Your task to perform on an android device: toggle location history Image 0: 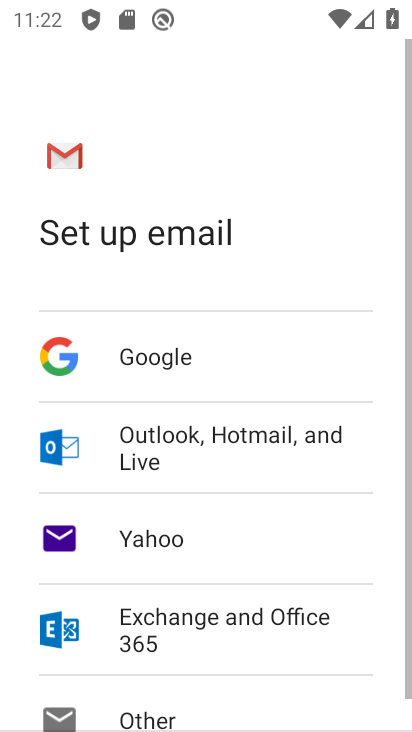
Step 0: press home button
Your task to perform on an android device: toggle location history Image 1: 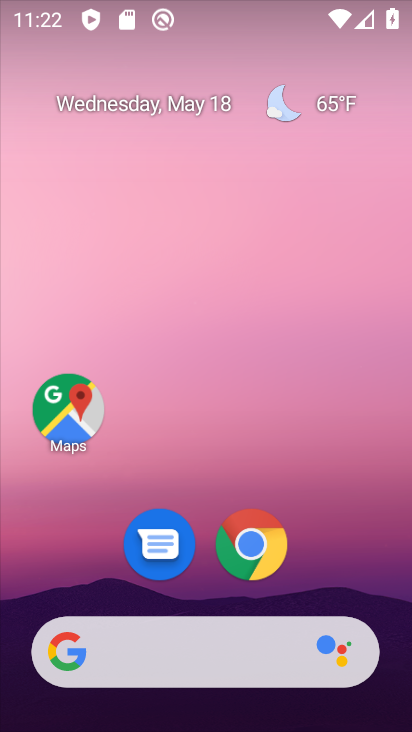
Step 1: drag from (352, 523) to (350, 108)
Your task to perform on an android device: toggle location history Image 2: 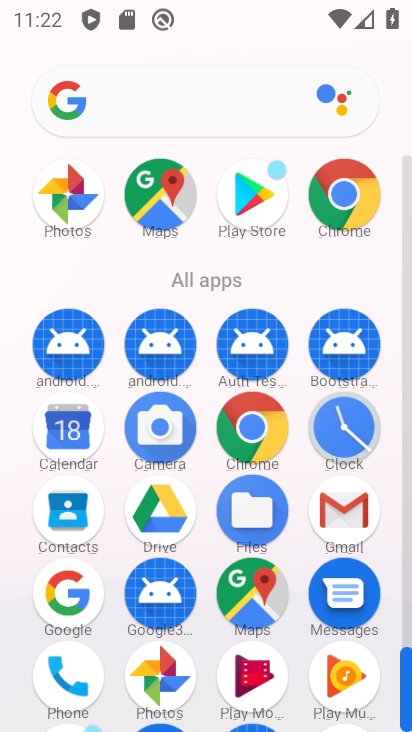
Step 2: drag from (203, 388) to (391, 581)
Your task to perform on an android device: toggle location history Image 3: 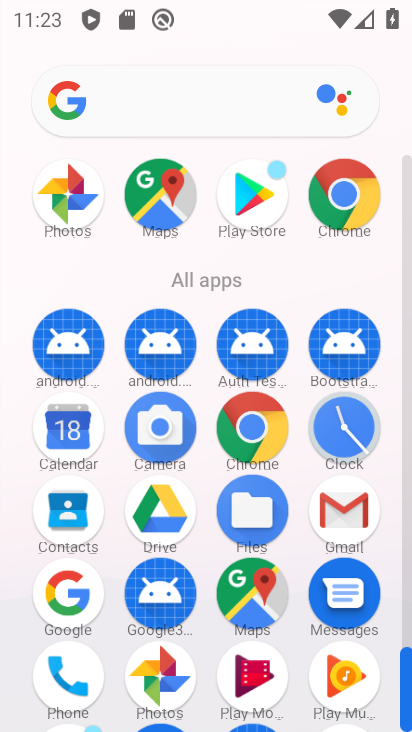
Step 3: drag from (200, 561) to (211, 61)
Your task to perform on an android device: toggle location history Image 4: 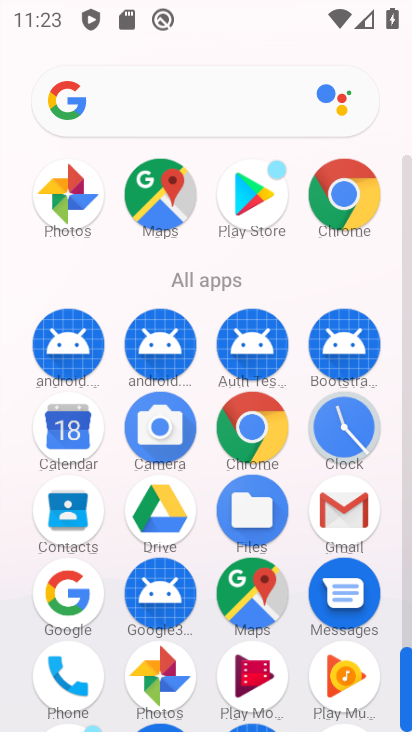
Step 4: drag from (199, 543) to (200, 183)
Your task to perform on an android device: toggle location history Image 5: 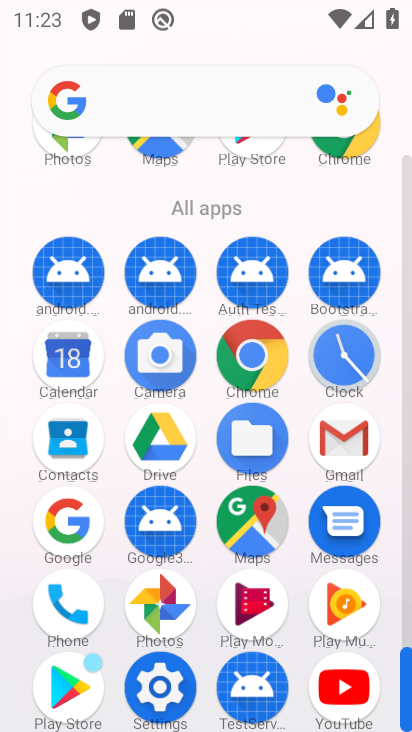
Step 5: click (178, 672)
Your task to perform on an android device: toggle location history Image 6: 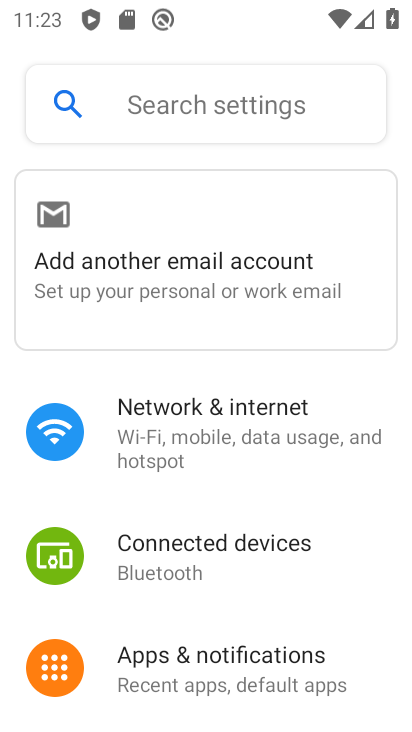
Step 6: drag from (358, 650) to (370, 486)
Your task to perform on an android device: toggle location history Image 7: 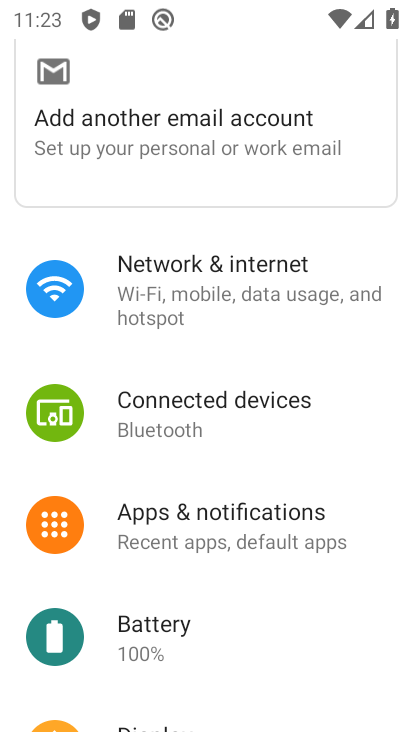
Step 7: drag from (364, 643) to (363, 440)
Your task to perform on an android device: toggle location history Image 8: 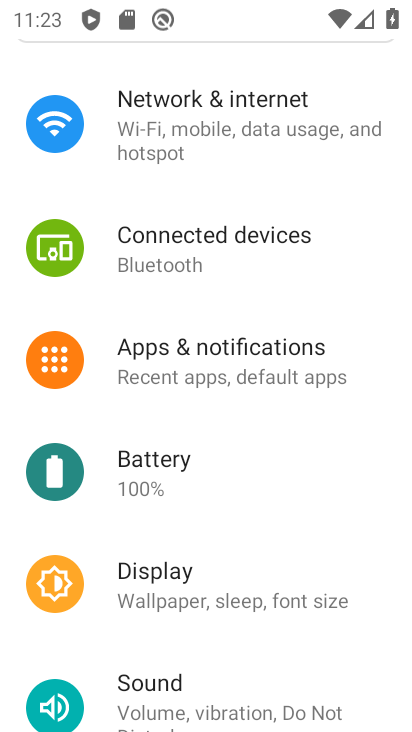
Step 8: drag from (347, 614) to (362, 328)
Your task to perform on an android device: toggle location history Image 9: 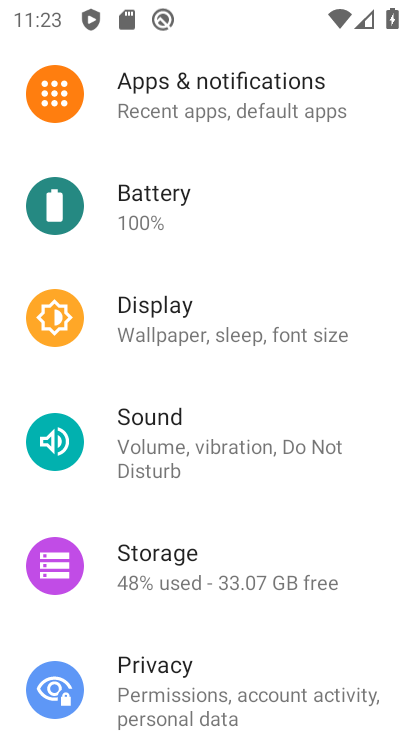
Step 9: drag from (363, 629) to (384, 295)
Your task to perform on an android device: toggle location history Image 10: 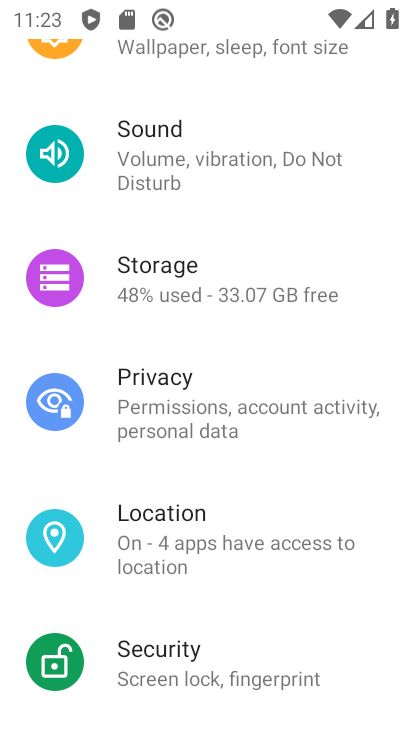
Step 10: click (310, 515)
Your task to perform on an android device: toggle location history Image 11: 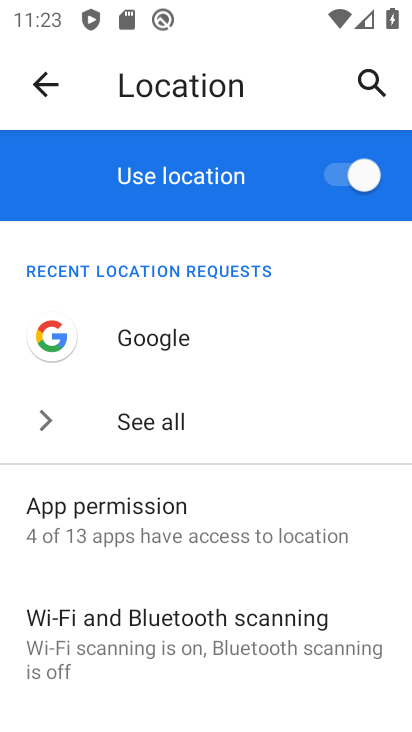
Step 11: drag from (268, 562) to (271, 294)
Your task to perform on an android device: toggle location history Image 12: 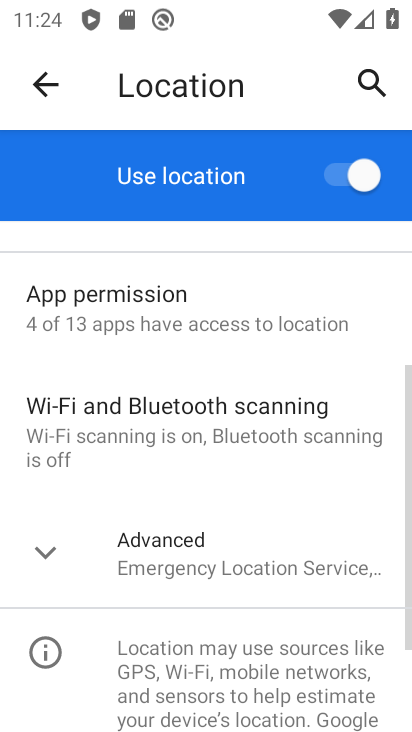
Step 12: click (256, 580)
Your task to perform on an android device: toggle location history Image 13: 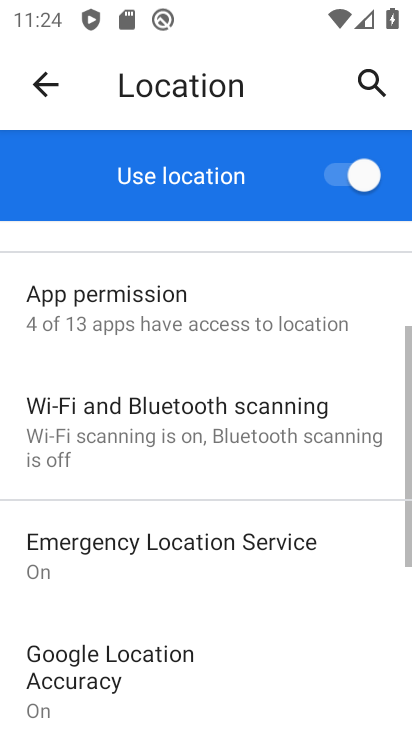
Step 13: drag from (261, 603) to (258, 337)
Your task to perform on an android device: toggle location history Image 14: 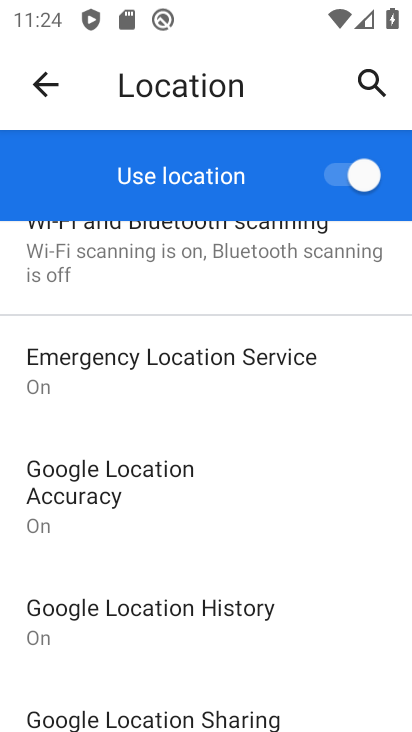
Step 14: drag from (276, 612) to (277, 433)
Your task to perform on an android device: toggle location history Image 15: 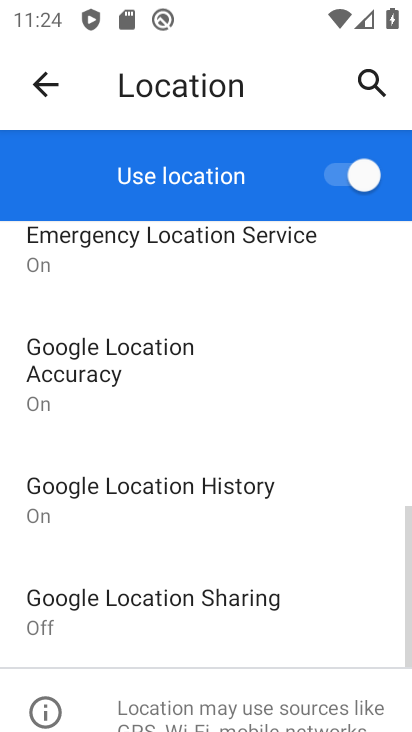
Step 15: click (259, 497)
Your task to perform on an android device: toggle location history Image 16: 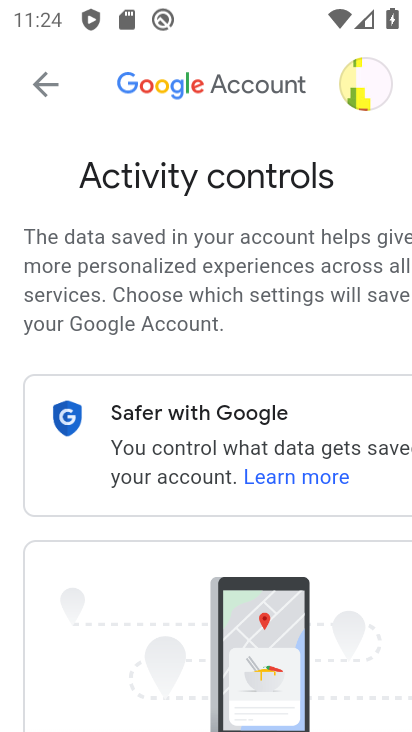
Step 16: drag from (248, 572) to (237, 390)
Your task to perform on an android device: toggle location history Image 17: 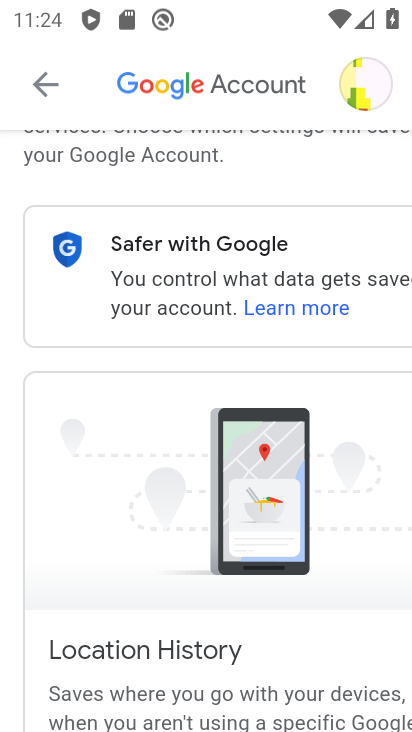
Step 17: drag from (227, 606) to (235, 343)
Your task to perform on an android device: toggle location history Image 18: 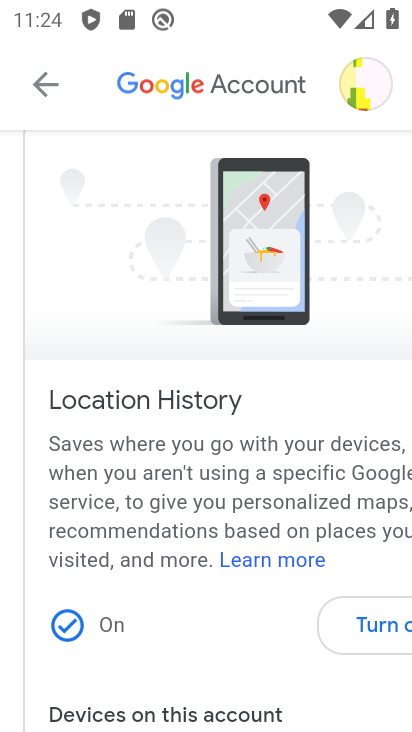
Step 18: click (381, 618)
Your task to perform on an android device: toggle location history Image 19: 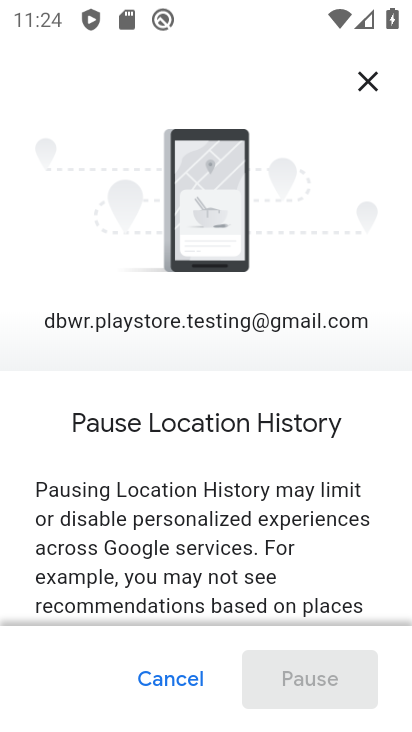
Step 19: drag from (223, 555) to (226, 365)
Your task to perform on an android device: toggle location history Image 20: 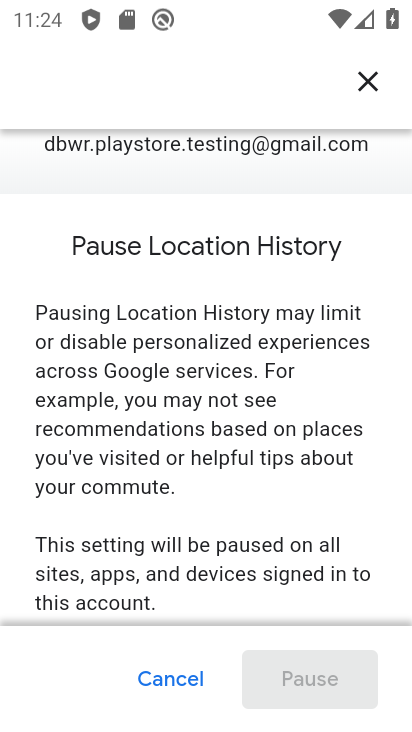
Step 20: drag from (216, 555) to (217, 368)
Your task to perform on an android device: toggle location history Image 21: 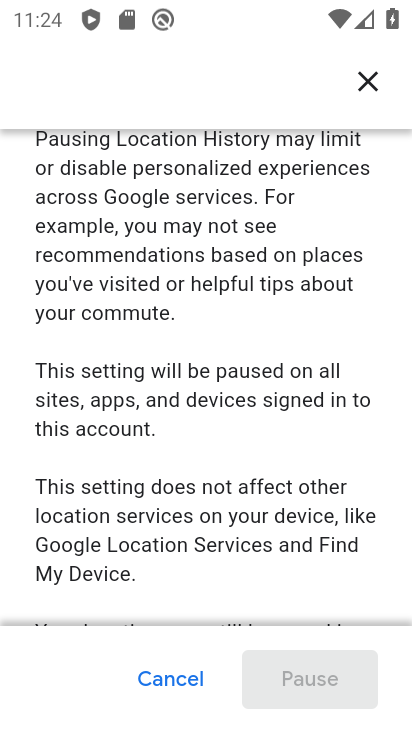
Step 21: drag from (217, 582) to (216, 407)
Your task to perform on an android device: toggle location history Image 22: 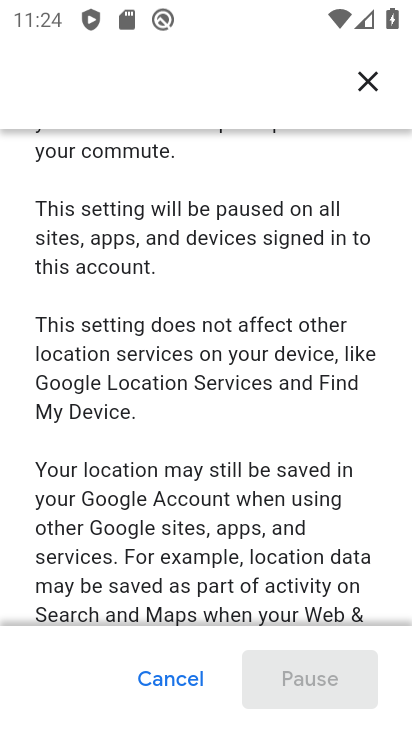
Step 22: drag from (229, 564) to (229, 396)
Your task to perform on an android device: toggle location history Image 23: 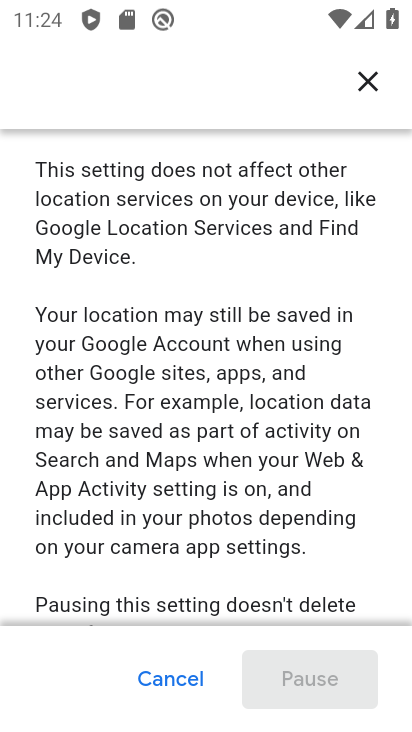
Step 23: drag from (213, 553) to (233, 409)
Your task to perform on an android device: toggle location history Image 24: 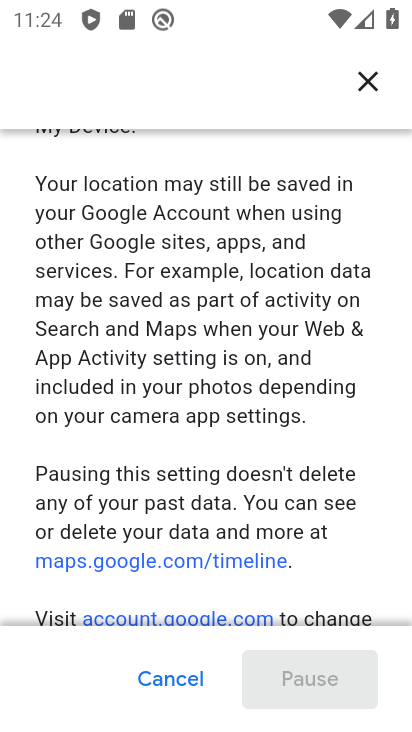
Step 24: drag from (332, 572) to (345, 366)
Your task to perform on an android device: toggle location history Image 25: 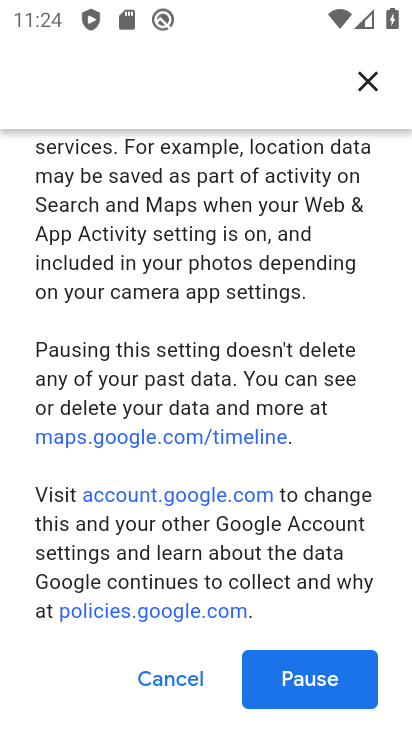
Step 25: click (319, 682)
Your task to perform on an android device: toggle location history Image 26: 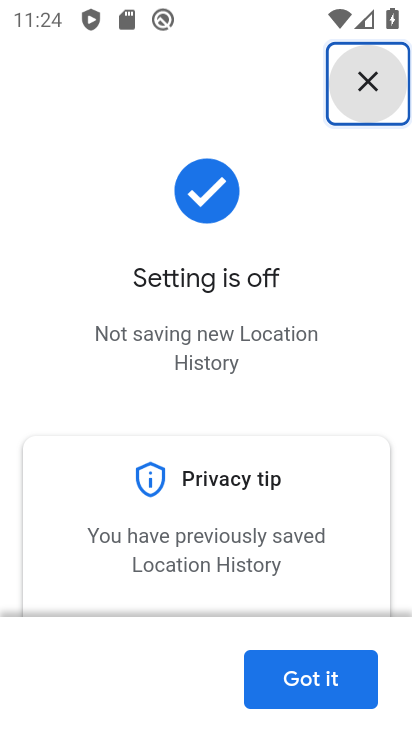
Step 26: task complete